Your task to perform on an android device: Is it going to rain this weekend? Image 0: 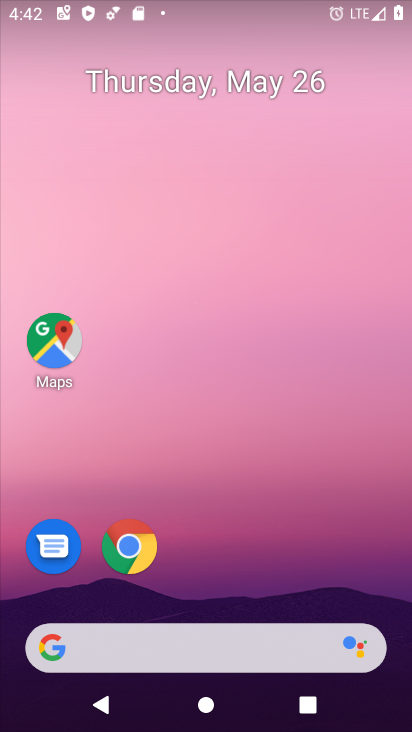
Step 0: drag from (200, 597) to (246, 104)
Your task to perform on an android device: Is it going to rain this weekend? Image 1: 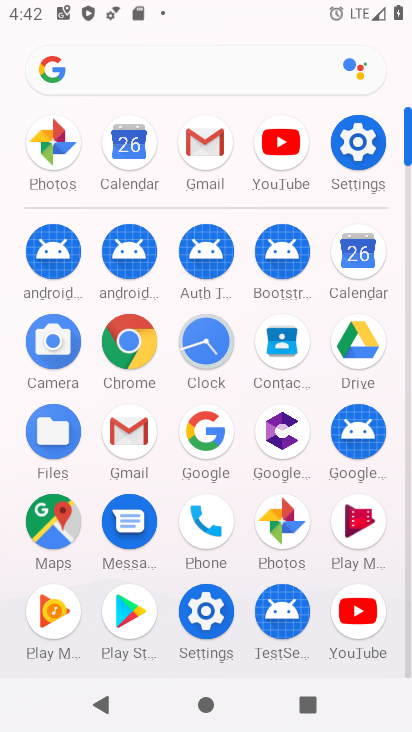
Step 1: click (108, 77)
Your task to perform on an android device: Is it going to rain this weekend? Image 2: 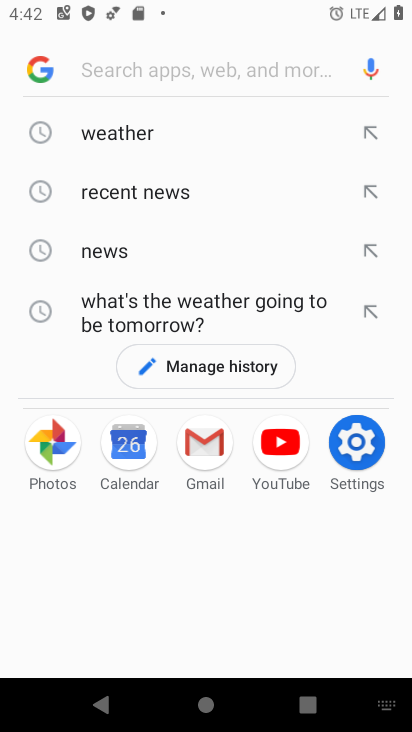
Step 2: click (108, 141)
Your task to perform on an android device: Is it going to rain this weekend? Image 3: 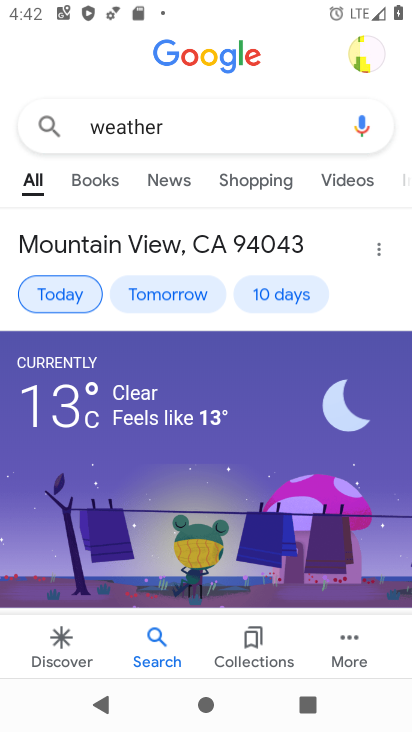
Step 3: drag from (187, 508) to (249, 209)
Your task to perform on an android device: Is it going to rain this weekend? Image 4: 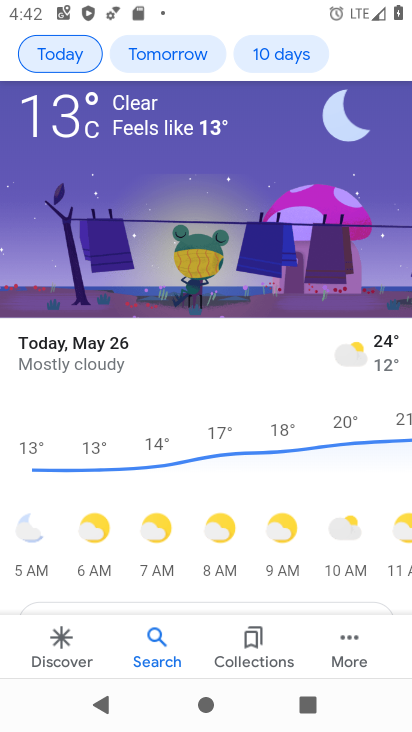
Step 4: drag from (248, 218) to (224, 497)
Your task to perform on an android device: Is it going to rain this weekend? Image 5: 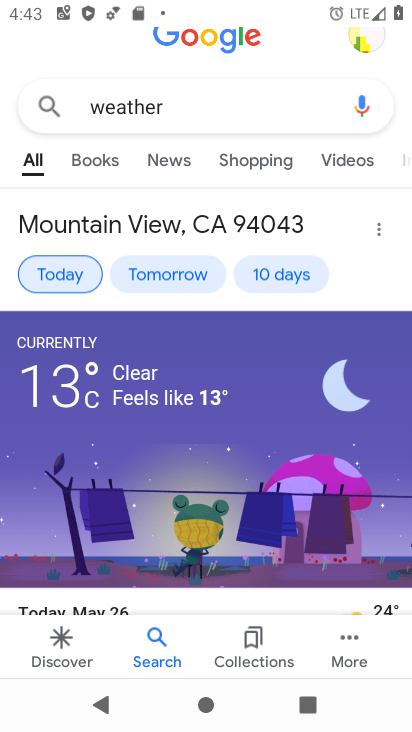
Step 5: click (264, 270)
Your task to perform on an android device: Is it going to rain this weekend? Image 6: 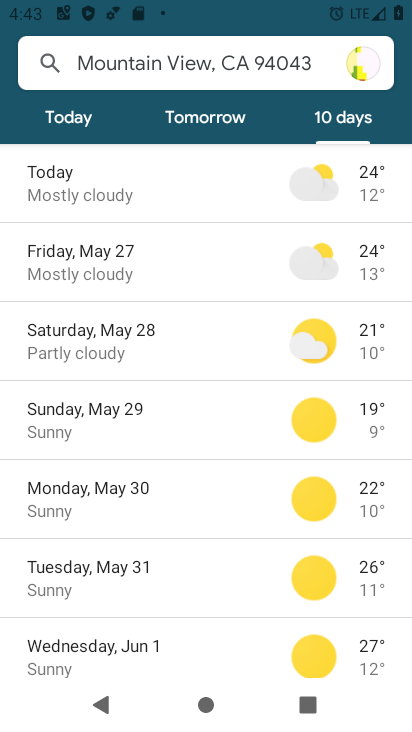
Step 6: task complete